Your task to perform on an android device: Open my contact list Image 0: 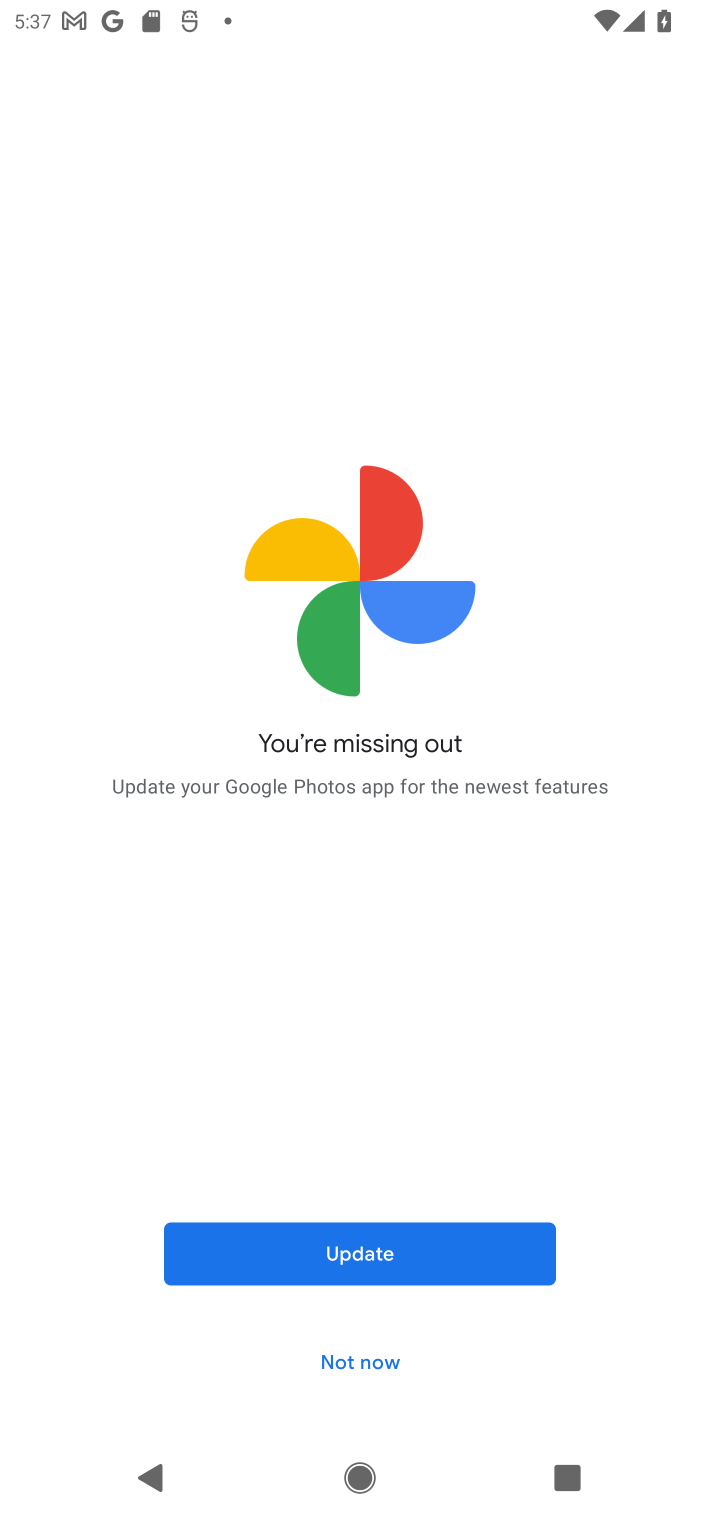
Step 0: press home button
Your task to perform on an android device: Open my contact list Image 1: 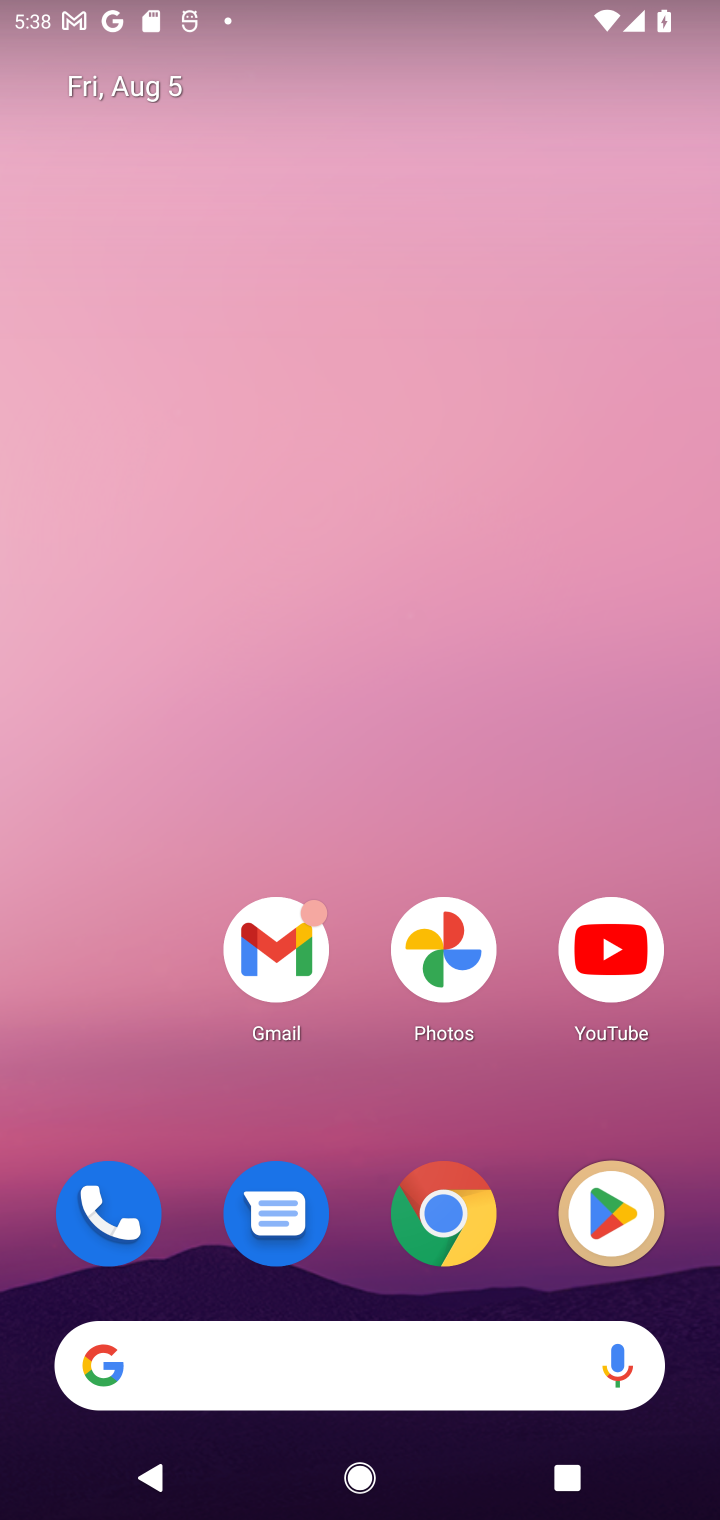
Step 1: drag from (353, 1288) to (424, 153)
Your task to perform on an android device: Open my contact list Image 2: 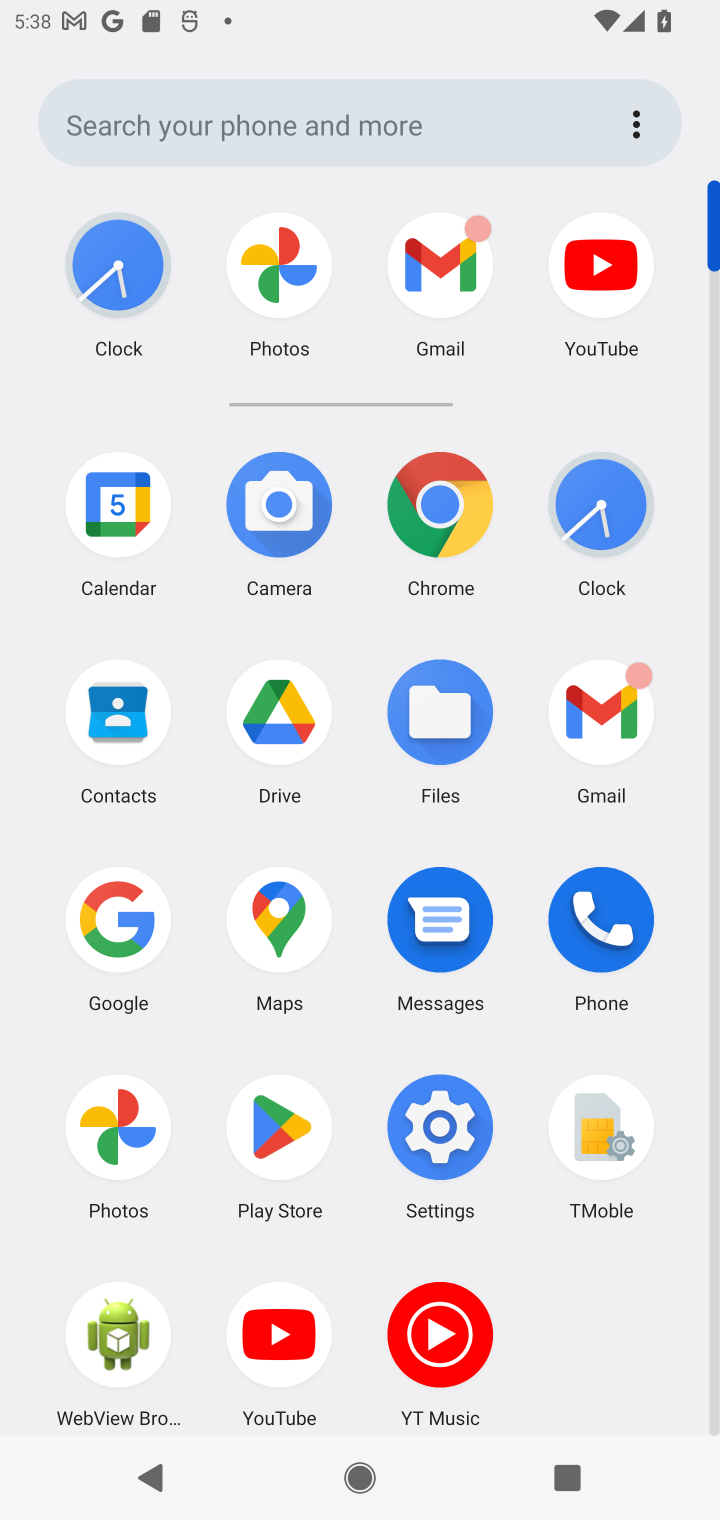
Step 2: click (140, 760)
Your task to perform on an android device: Open my contact list Image 3: 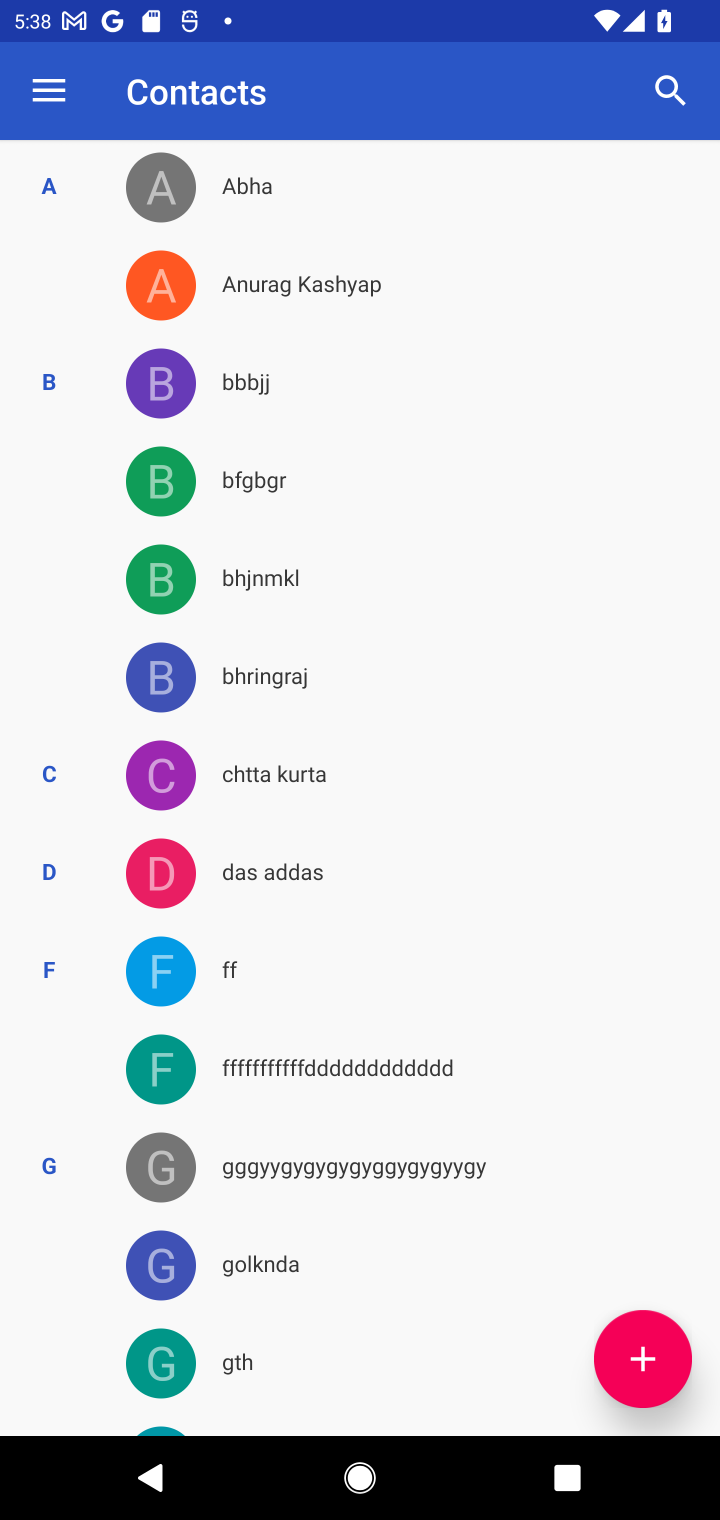
Step 3: task complete